Your task to perform on an android device: toggle sleep mode Image 0: 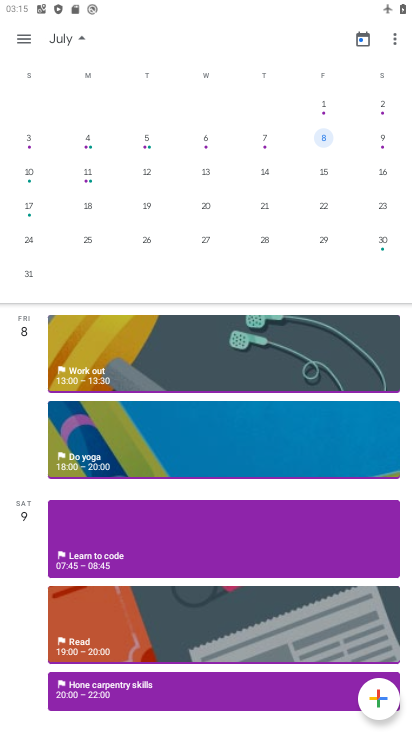
Step 0: press home button
Your task to perform on an android device: toggle sleep mode Image 1: 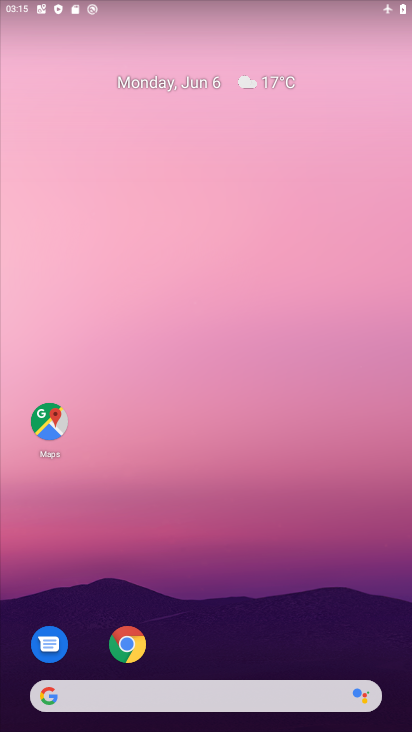
Step 1: drag from (389, 651) to (307, 11)
Your task to perform on an android device: toggle sleep mode Image 2: 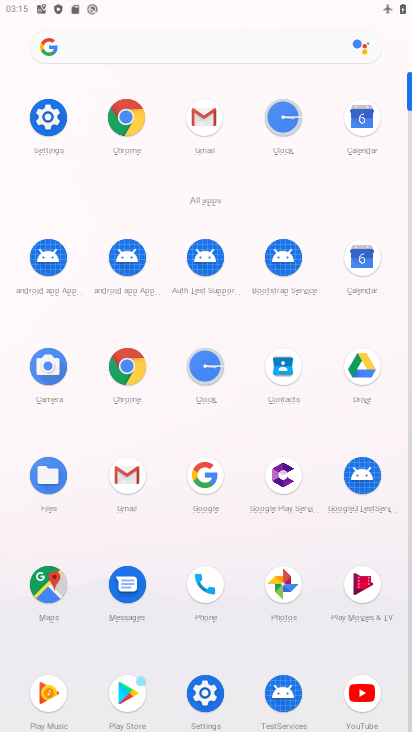
Step 2: click (62, 99)
Your task to perform on an android device: toggle sleep mode Image 3: 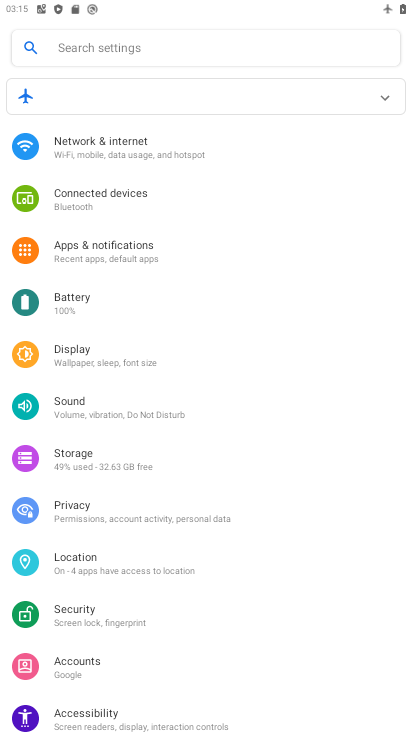
Step 3: click (120, 138)
Your task to perform on an android device: toggle sleep mode Image 4: 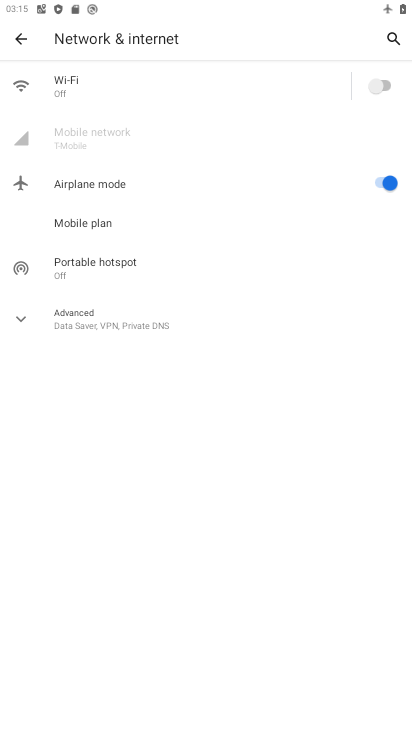
Step 4: click (387, 83)
Your task to perform on an android device: toggle sleep mode Image 5: 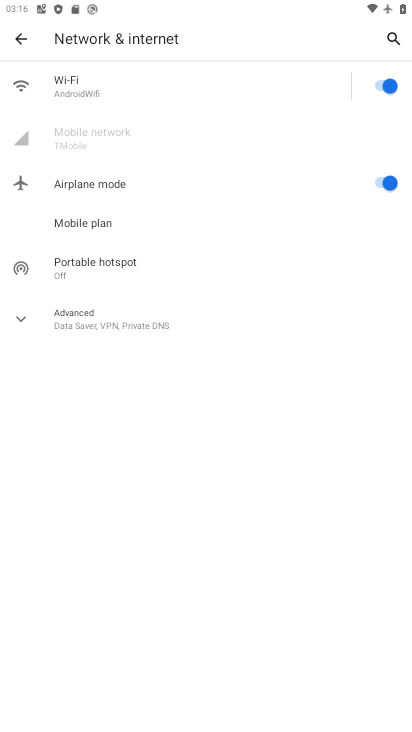
Step 5: click (372, 180)
Your task to perform on an android device: toggle sleep mode Image 6: 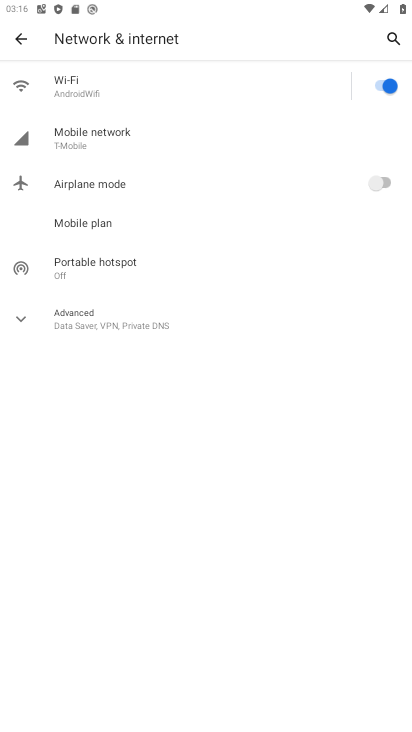
Step 6: click (16, 41)
Your task to perform on an android device: toggle sleep mode Image 7: 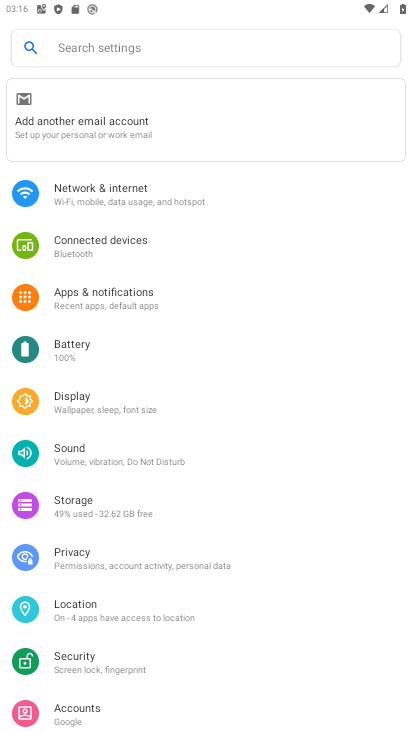
Step 7: click (77, 408)
Your task to perform on an android device: toggle sleep mode Image 8: 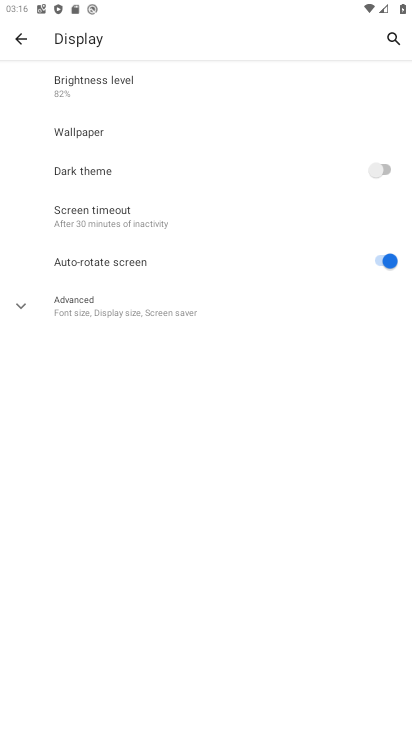
Step 8: click (101, 218)
Your task to perform on an android device: toggle sleep mode Image 9: 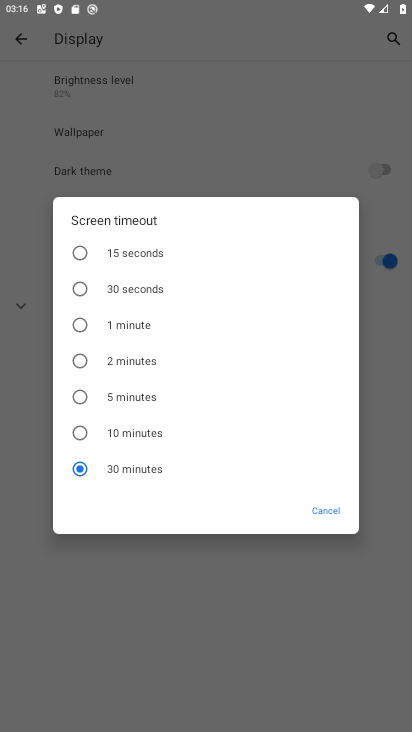
Step 9: click (75, 432)
Your task to perform on an android device: toggle sleep mode Image 10: 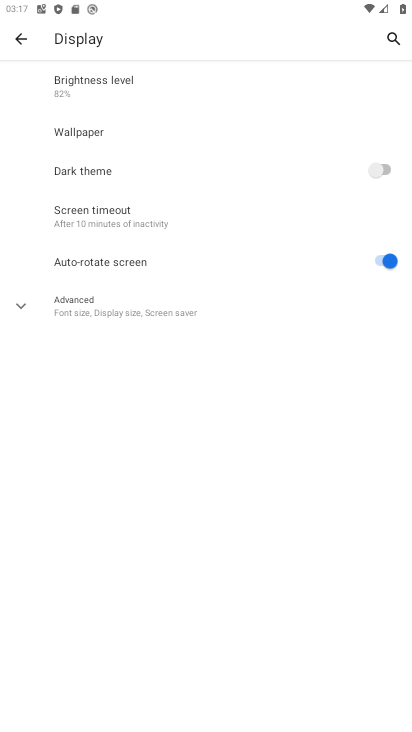
Step 10: task complete